Your task to perform on an android device: Open privacy settings Image 0: 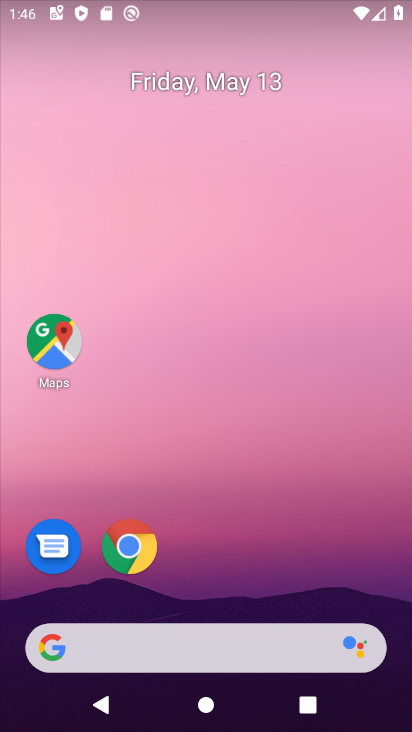
Step 0: drag from (290, 564) to (309, 69)
Your task to perform on an android device: Open privacy settings Image 1: 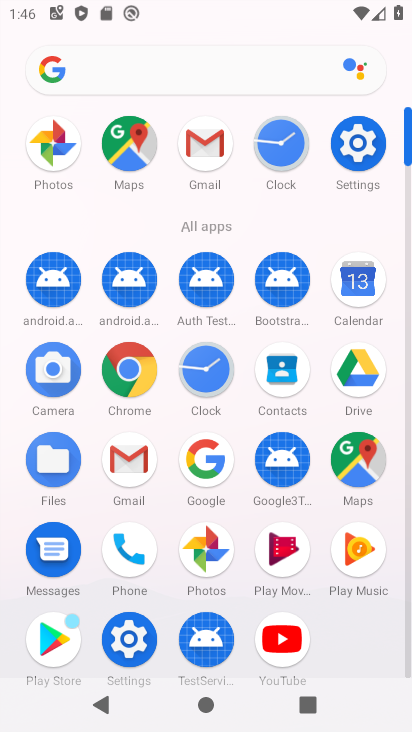
Step 1: click (358, 150)
Your task to perform on an android device: Open privacy settings Image 2: 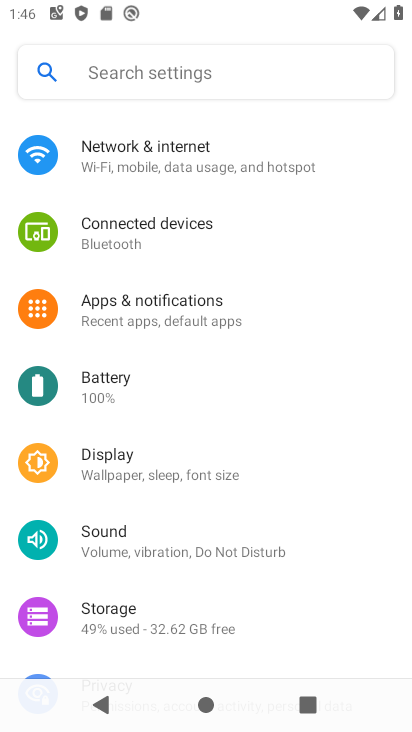
Step 2: drag from (269, 631) to (277, 142)
Your task to perform on an android device: Open privacy settings Image 3: 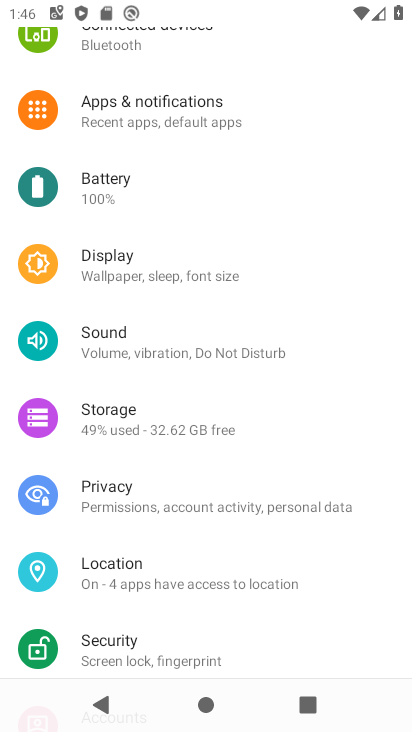
Step 3: drag from (160, 587) to (260, 201)
Your task to perform on an android device: Open privacy settings Image 4: 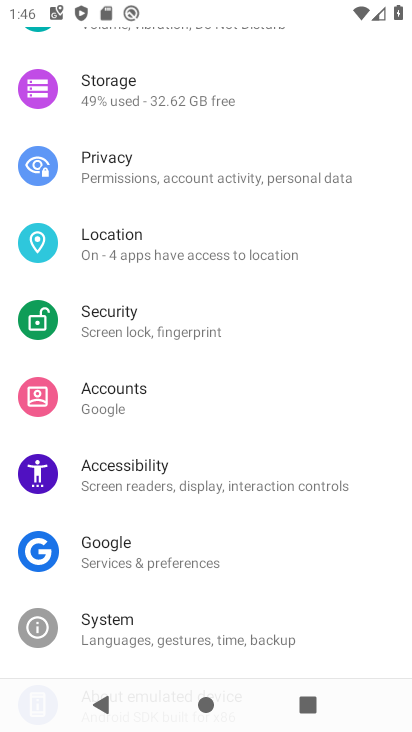
Step 4: drag from (204, 544) to (282, 219)
Your task to perform on an android device: Open privacy settings Image 5: 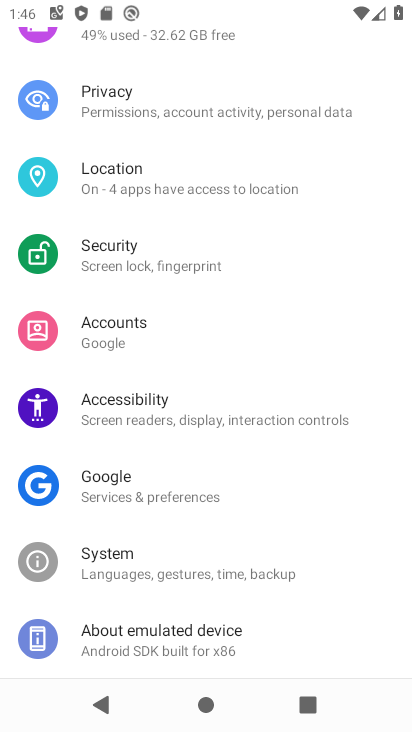
Step 5: drag from (245, 281) to (239, 545)
Your task to perform on an android device: Open privacy settings Image 6: 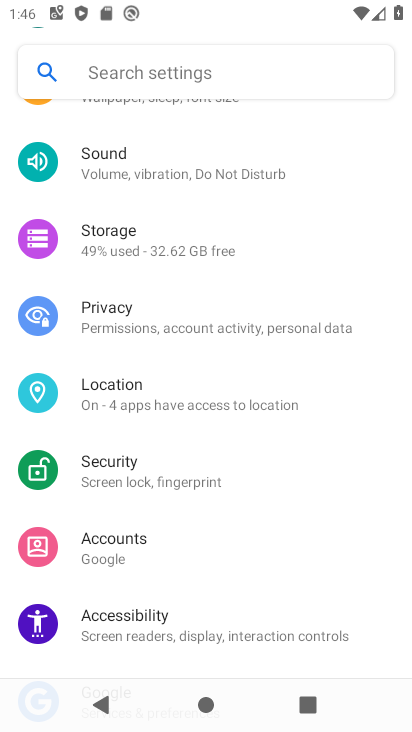
Step 6: click (177, 331)
Your task to perform on an android device: Open privacy settings Image 7: 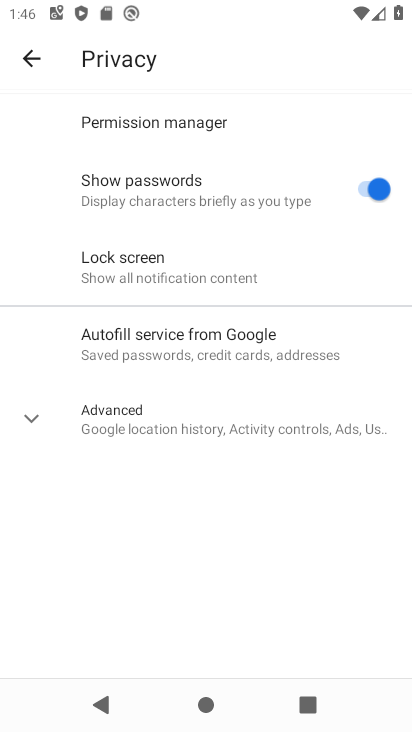
Step 7: click (180, 317)
Your task to perform on an android device: Open privacy settings Image 8: 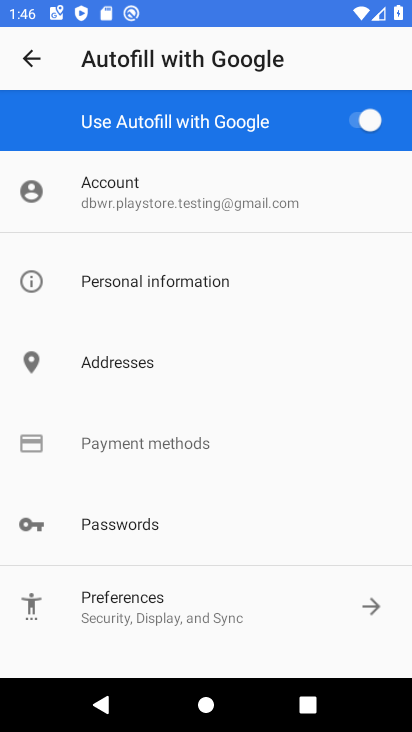
Step 8: click (30, 58)
Your task to perform on an android device: Open privacy settings Image 9: 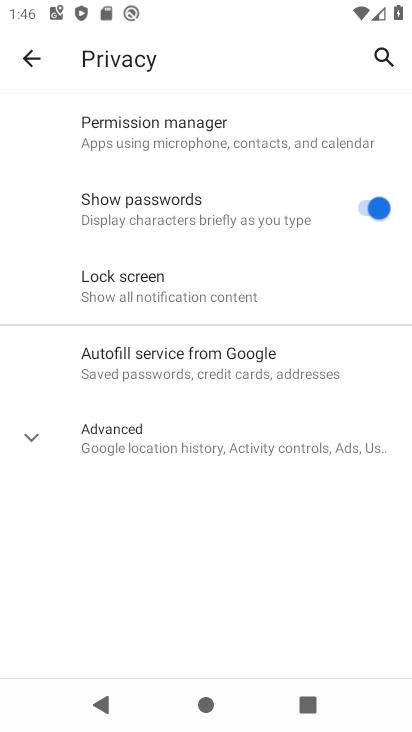
Step 9: task complete